Your task to perform on an android device: Open the calendar and show me this week's events Image 0: 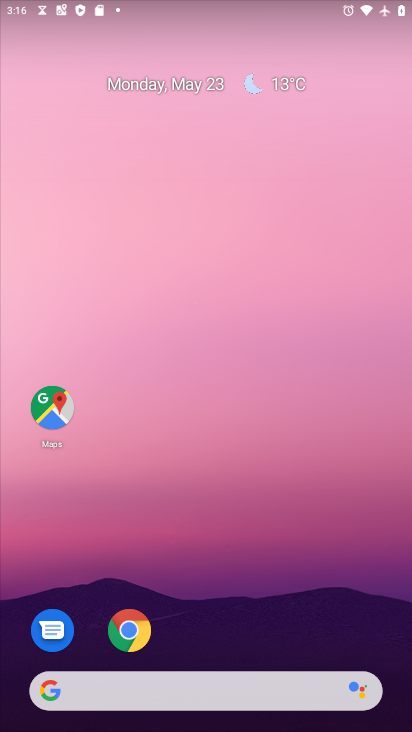
Step 0: drag from (295, 572) to (210, 6)
Your task to perform on an android device: Open the calendar and show me this week's events Image 1: 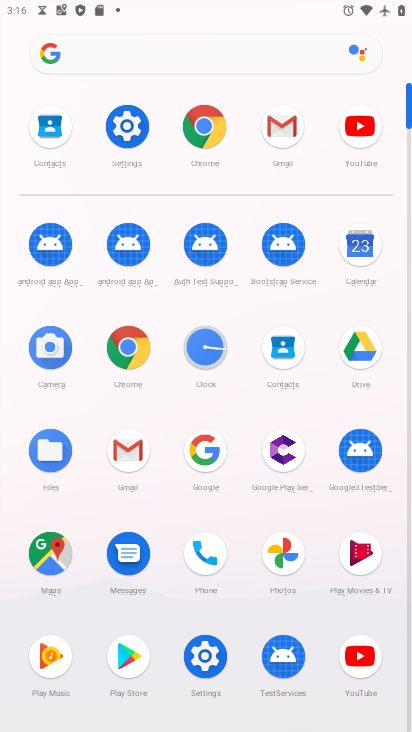
Step 1: click (360, 255)
Your task to perform on an android device: Open the calendar and show me this week's events Image 2: 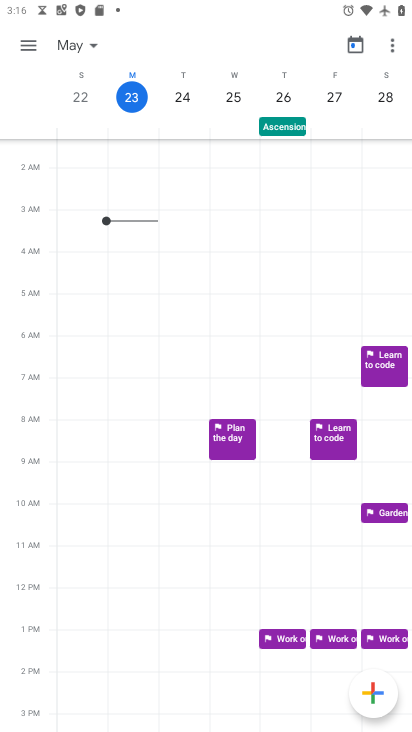
Step 2: task complete